Your task to perform on an android device: find snoozed emails in the gmail app Image 0: 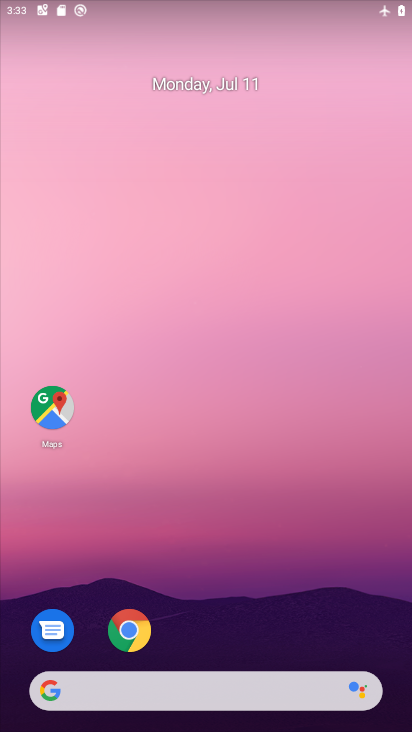
Step 0: drag from (233, 617) to (235, 180)
Your task to perform on an android device: find snoozed emails in the gmail app Image 1: 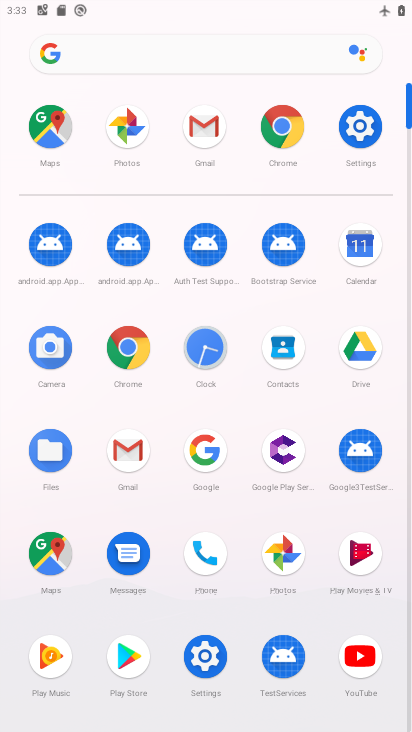
Step 1: click (208, 138)
Your task to perform on an android device: find snoozed emails in the gmail app Image 2: 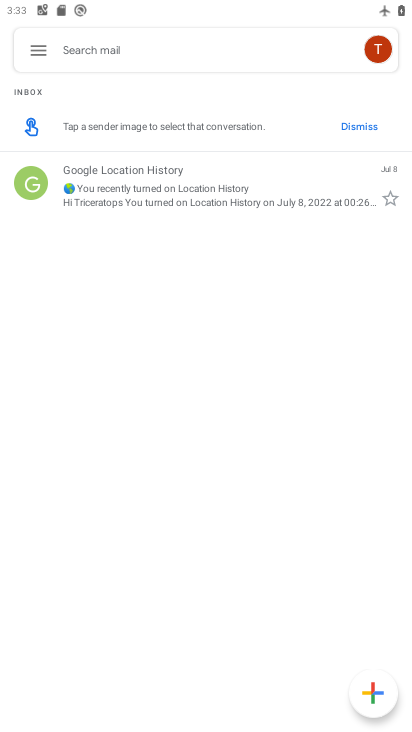
Step 2: click (27, 56)
Your task to perform on an android device: find snoozed emails in the gmail app Image 3: 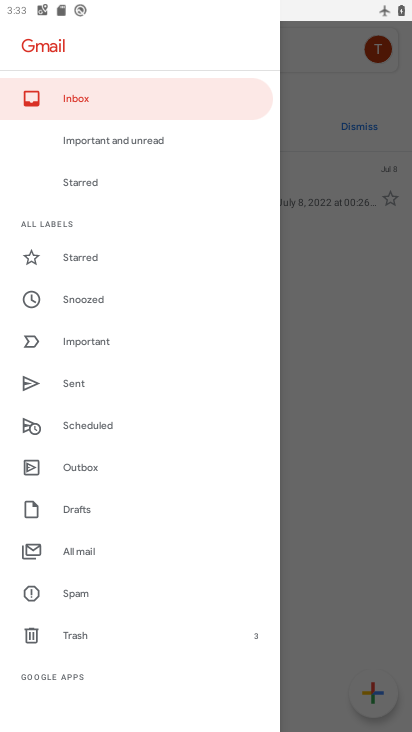
Step 3: click (114, 297)
Your task to perform on an android device: find snoozed emails in the gmail app Image 4: 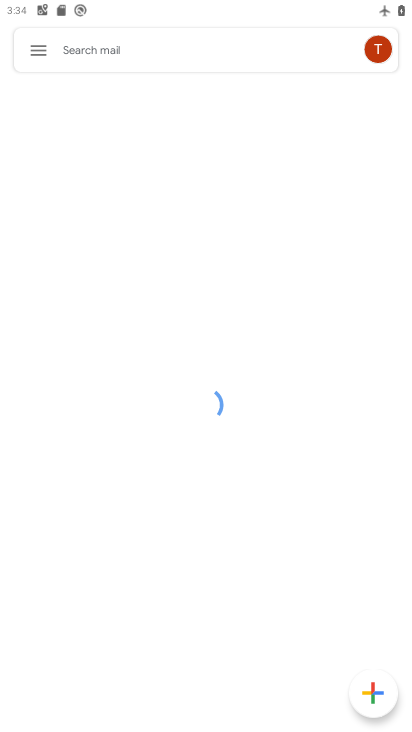
Step 4: task complete